Your task to perform on an android device: toggle show notifications on the lock screen Image 0: 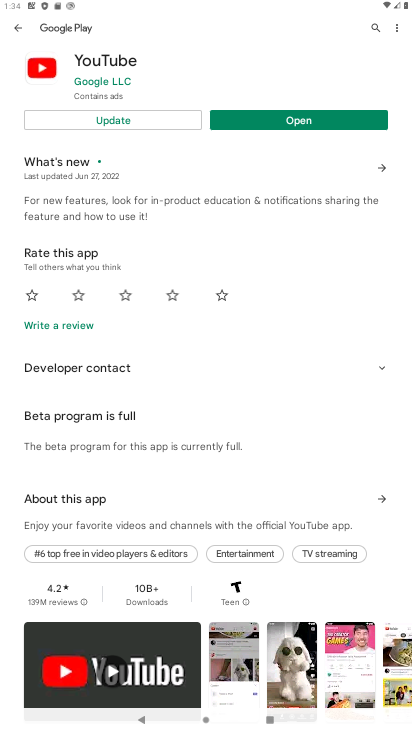
Step 0: press home button
Your task to perform on an android device: toggle show notifications on the lock screen Image 1: 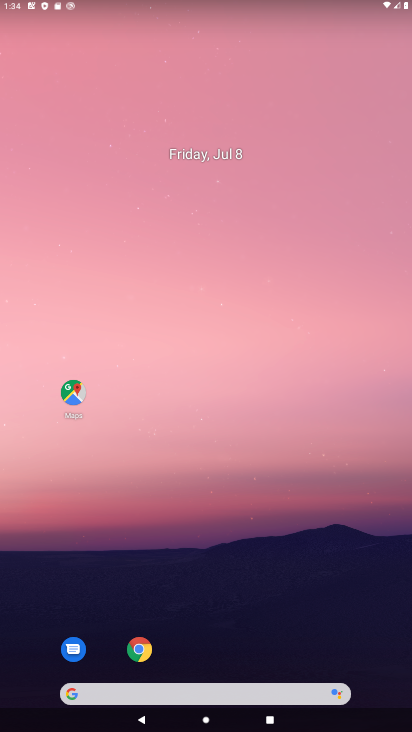
Step 1: drag from (45, 711) to (168, 11)
Your task to perform on an android device: toggle show notifications on the lock screen Image 2: 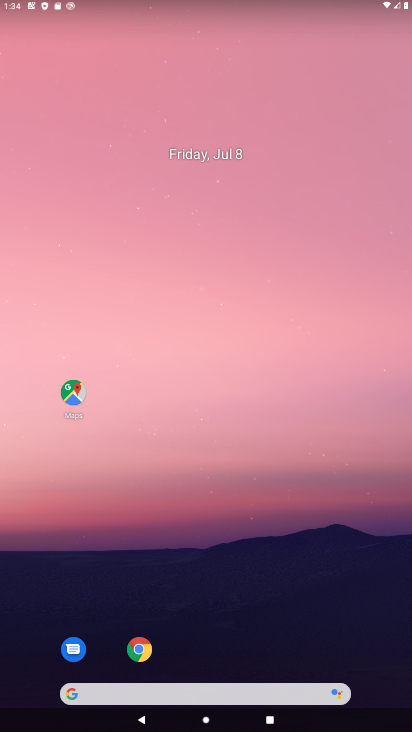
Step 2: drag from (28, 696) to (131, 80)
Your task to perform on an android device: toggle show notifications on the lock screen Image 3: 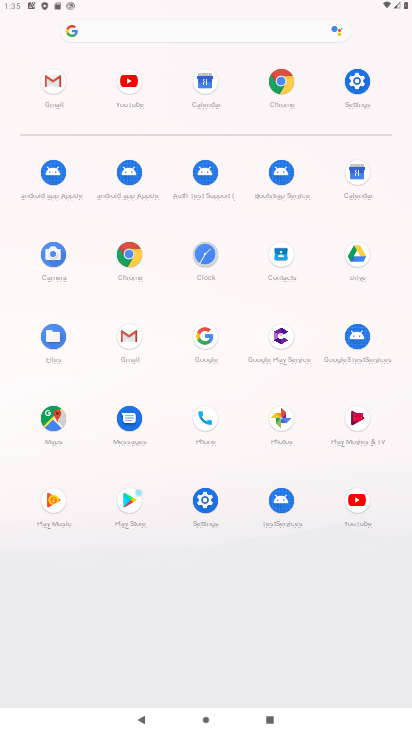
Step 3: click (201, 502)
Your task to perform on an android device: toggle show notifications on the lock screen Image 4: 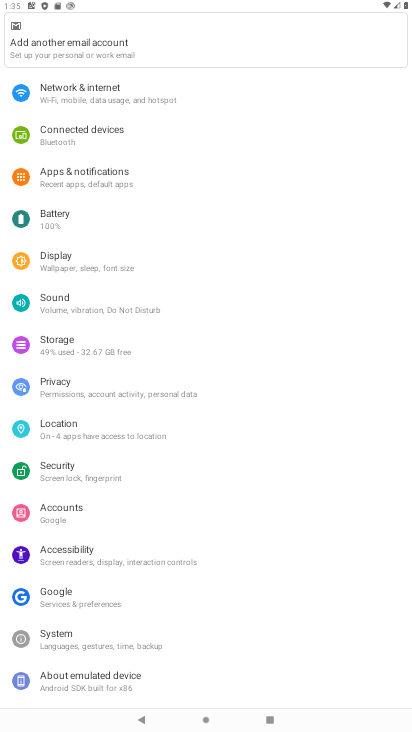
Step 4: click (82, 474)
Your task to perform on an android device: toggle show notifications on the lock screen Image 5: 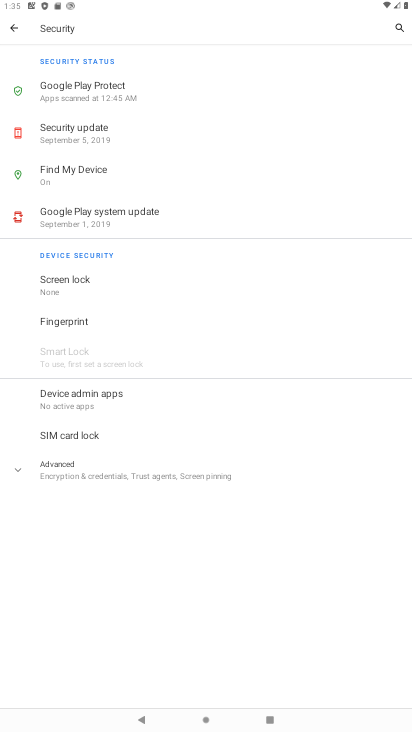
Step 5: click (80, 284)
Your task to perform on an android device: toggle show notifications on the lock screen Image 6: 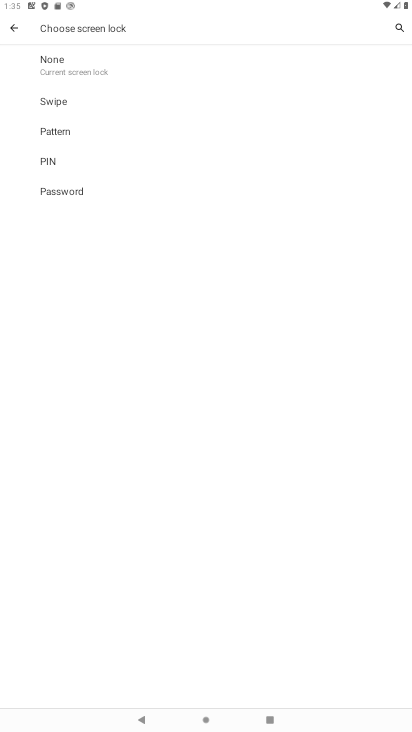
Step 6: task complete